Your task to perform on an android device: add a contact Image 0: 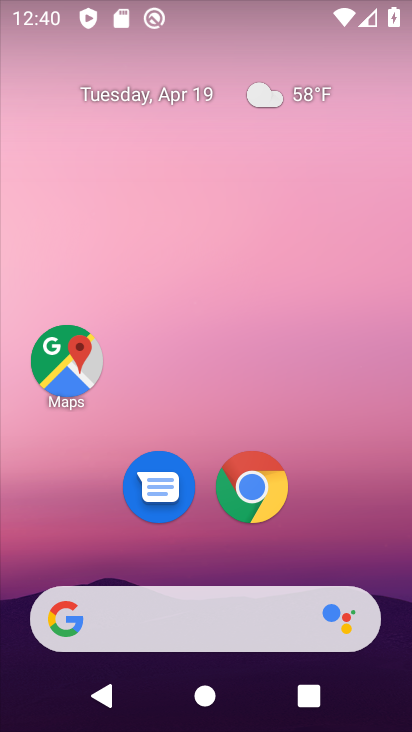
Step 0: drag from (210, 693) to (205, 158)
Your task to perform on an android device: add a contact Image 1: 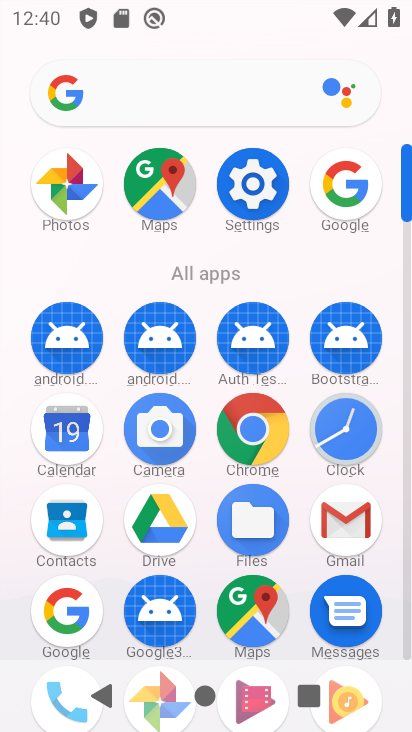
Step 1: click (64, 523)
Your task to perform on an android device: add a contact Image 2: 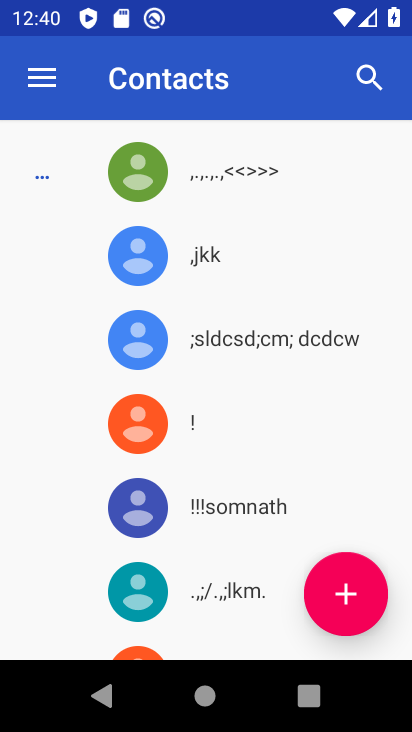
Step 2: click (348, 587)
Your task to perform on an android device: add a contact Image 3: 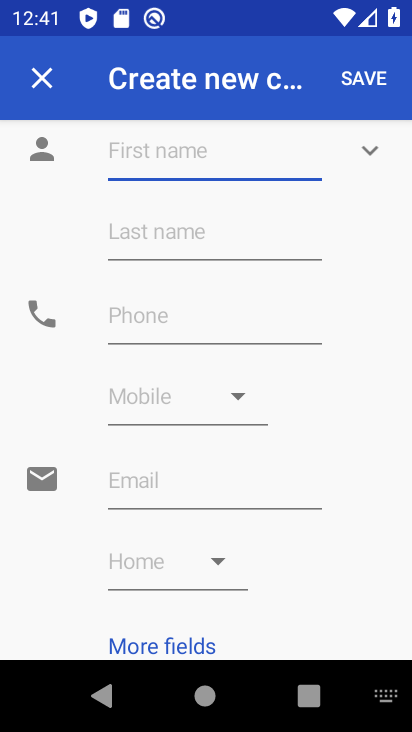
Step 3: type "raw"
Your task to perform on an android device: add a contact Image 4: 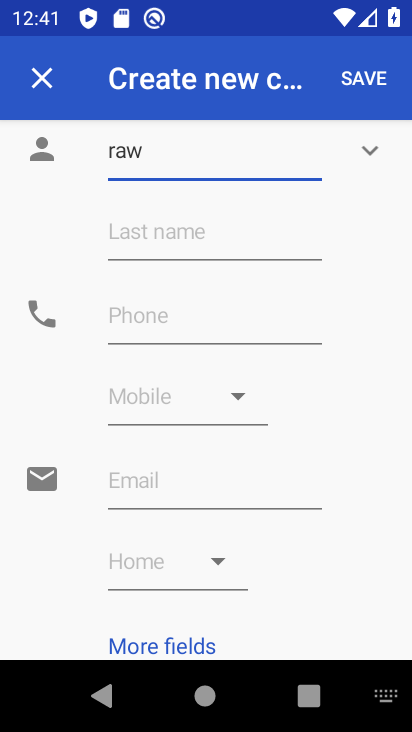
Step 4: click (185, 323)
Your task to perform on an android device: add a contact Image 5: 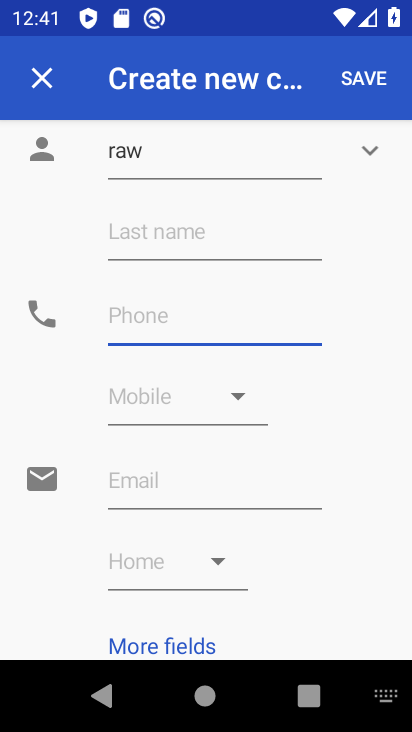
Step 5: type "999"
Your task to perform on an android device: add a contact Image 6: 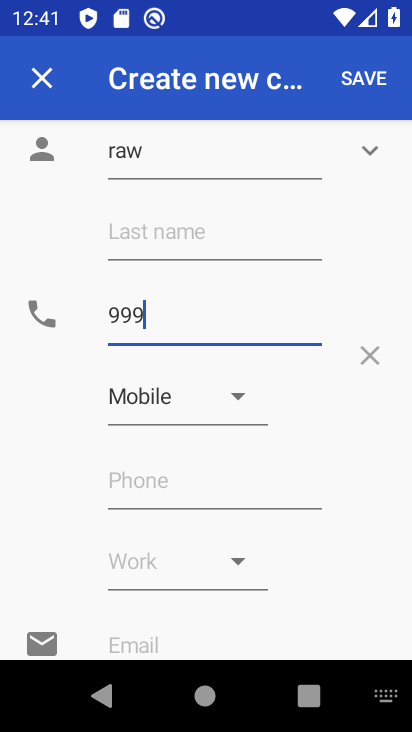
Step 6: click (365, 77)
Your task to perform on an android device: add a contact Image 7: 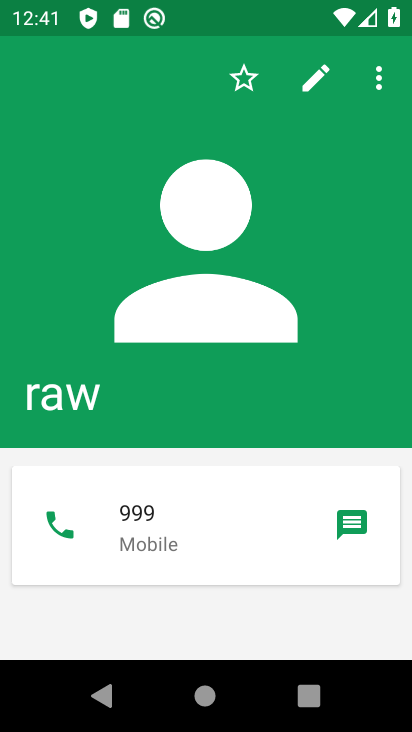
Step 7: task complete